Your task to perform on an android device: Show the shopping cart on walmart. Add "logitech g pro" to the cart on walmart Image 0: 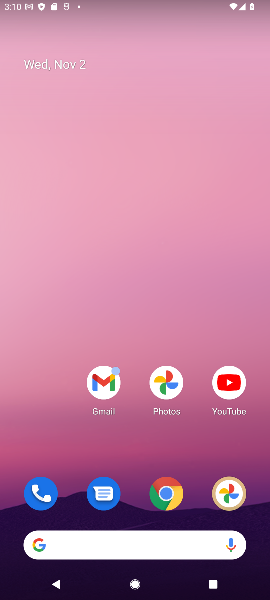
Step 0: click (163, 495)
Your task to perform on an android device: Show the shopping cart on walmart. Add "logitech g pro" to the cart on walmart Image 1: 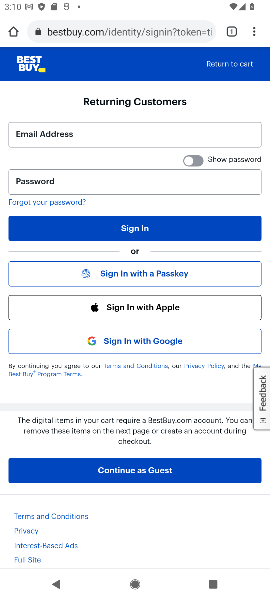
Step 1: click (158, 29)
Your task to perform on an android device: Show the shopping cart on walmart. Add "logitech g pro" to the cart on walmart Image 2: 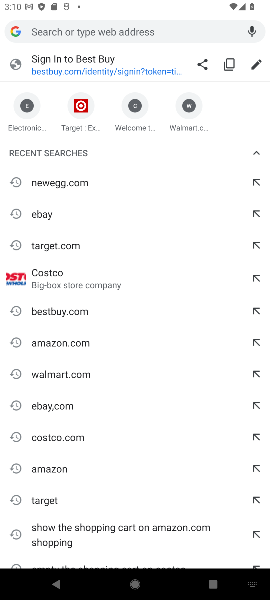
Step 2: click (80, 374)
Your task to perform on an android device: Show the shopping cart on walmart. Add "logitech g pro" to the cart on walmart Image 3: 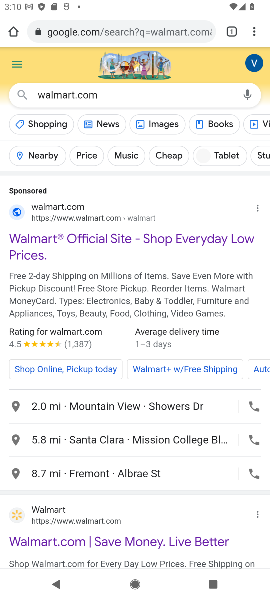
Step 3: click (74, 205)
Your task to perform on an android device: Show the shopping cart on walmart. Add "logitech g pro" to the cart on walmart Image 4: 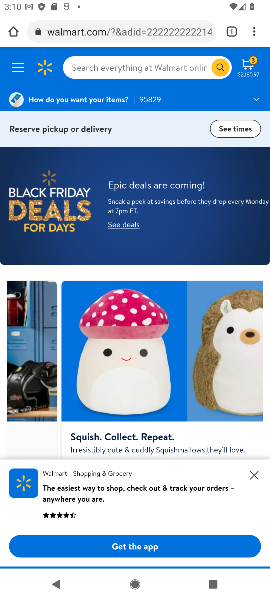
Step 4: click (182, 67)
Your task to perform on an android device: Show the shopping cart on walmart. Add "logitech g pro" to the cart on walmart Image 5: 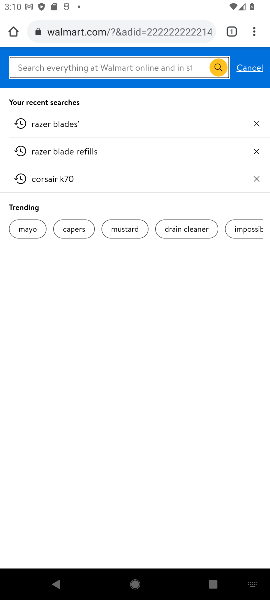
Step 5: type "logitech g pro"
Your task to perform on an android device: Show the shopping cart on walmart. Add "logitech g pro" to the cart on walmart Image 6: 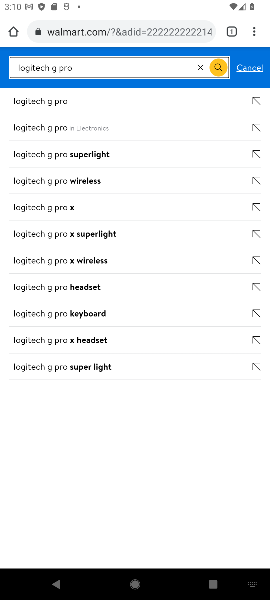
Step 6: click (57, 100)
Your task to perform on an android device: Show the shopping cart on walmart. Add "logitech g pro" to the cart on walmart Image 7: 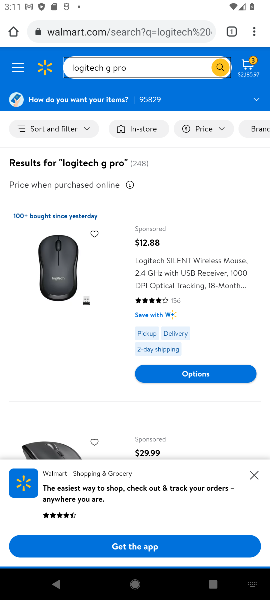
Step 7: drag from (100, 392) to (82, 288)
Your task to perform on an android device: Show the shopping cart on walmart. Add "logitech g pro" to the cart on walmart Image 8: 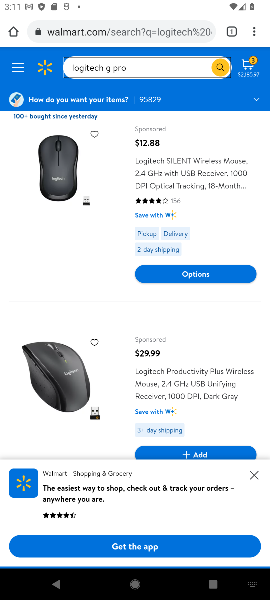
Step 8: click (42, 201)
Your task to perform on an android device: Show the shopping cart on walmart. Add "logitech g pro" to the cart on walmart Image 9: 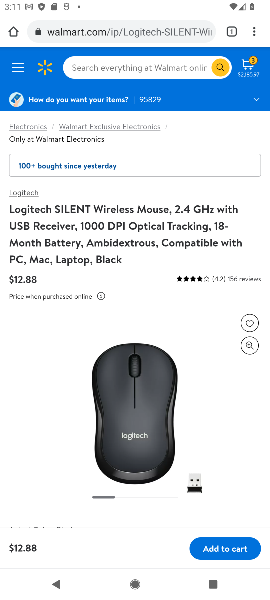
Step 9: click (240, 544)
Your task to perform on an android device: Show the shopping cart on walmart. Add "logitech g pro" to the cart on walmart Image 10: 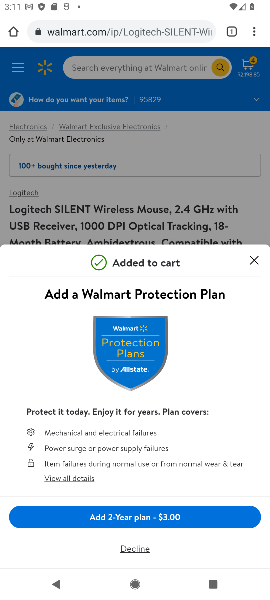
Step 10: task complete